Your task to perform on an android device: Open accessibility settings Image 0: 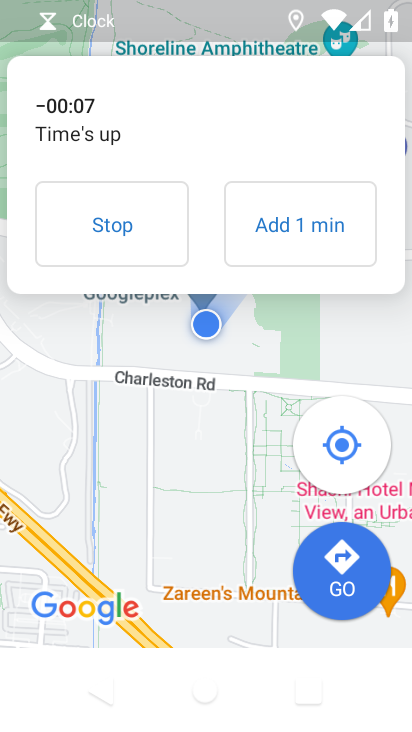
Step 0: press home button
Your task to perform on an android device: Open accessibility settings Image 1: 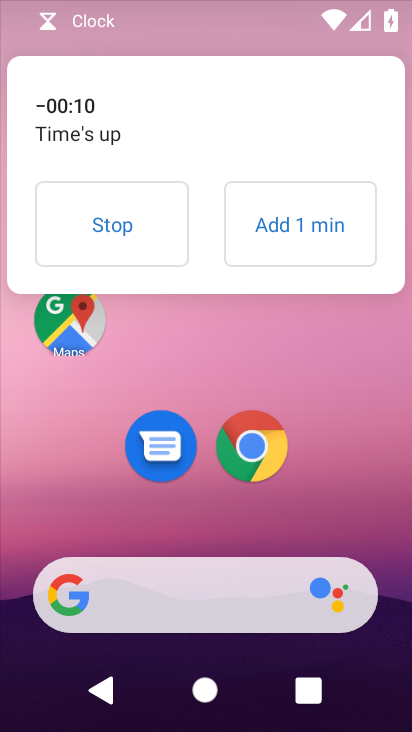
Step 1: drag from (230, 617) to (247, 53)
Your task to perform on an android device: Open accessibility settings Image 2: 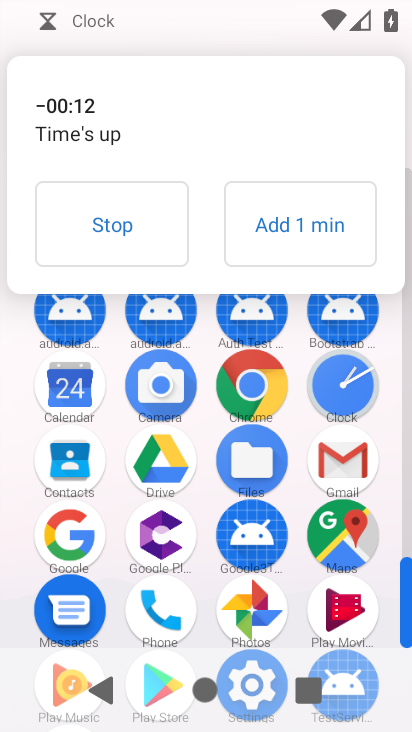
Step 2: click (144, 242)
Your task to perform on an android device: Open accessibility settings Image 3: 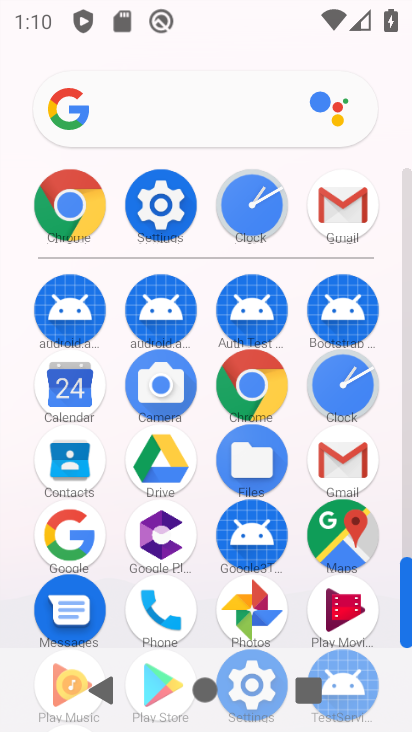
Step 3: click (168, 221)
Your task to perform on an android device: Open accessibility settings Image 4: 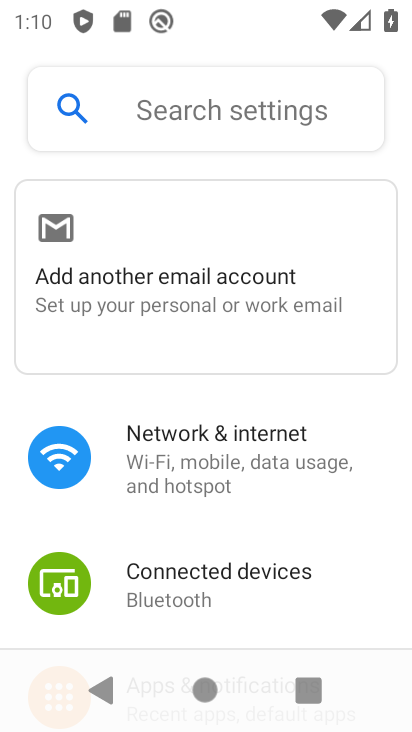
Step 4: drag from (186, 571) to (273, 141)
Your task to perform on an android device: Open accessibility settings Image 5: 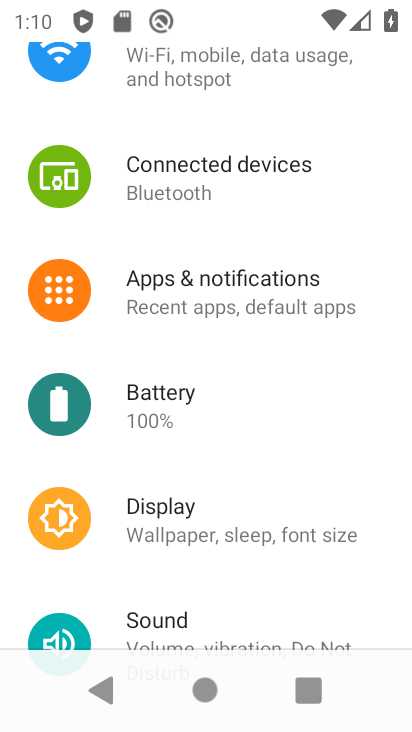
Step 5: drag from (119, 591) to (197, 199)
Your task to perform on an android device: Open accessibility settings Image 6: 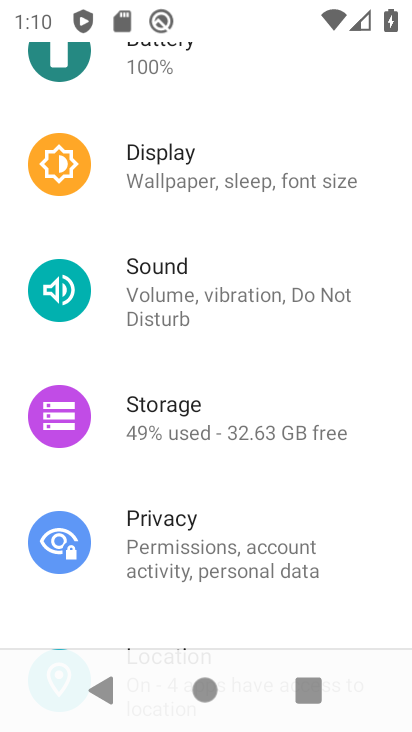
Step 6: drag from (114, 494) to (204, 179)
Your task to perform on an android device: Open accessibility settings Image 7: 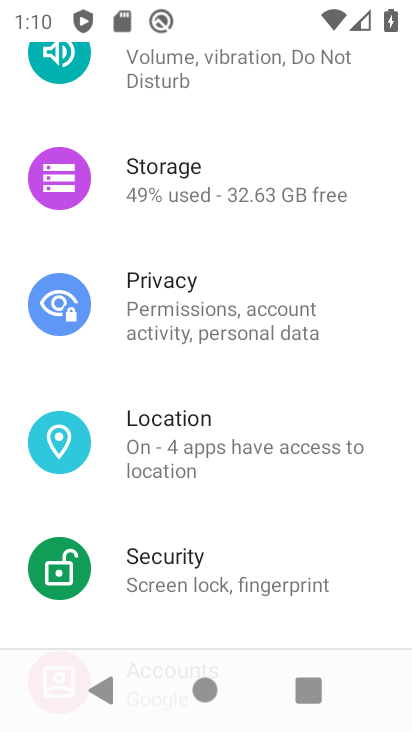
Step 7: drag from (164, 441) to (201, 208)
Your task to perform on an android device: Open accessibility settings Image 8: 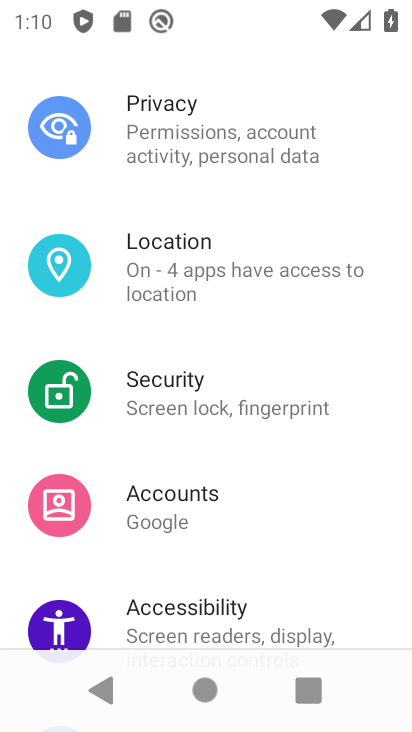
Step 8: drag from (182, 539) to (207, 309)
Your task to perform on an android device: Open accessibility settings Image 9: 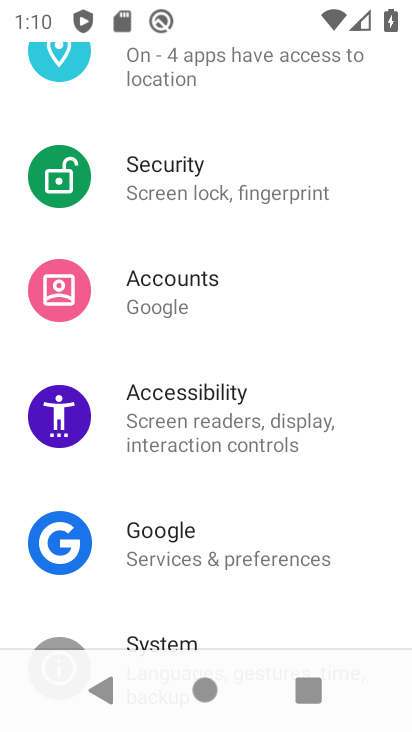
Step 9: click (187, 423)
Your task to perform on an android device: Open accessibility settings Image 10: 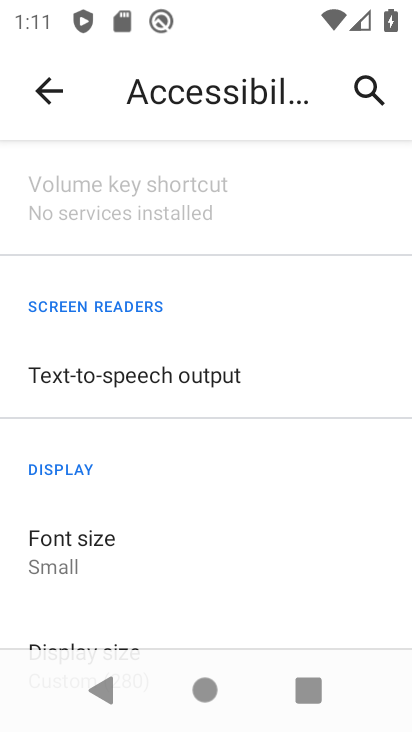
Step 10: task complete